Your task to perform on an android device: open chrome and create a bookmark for the current page Image 0: 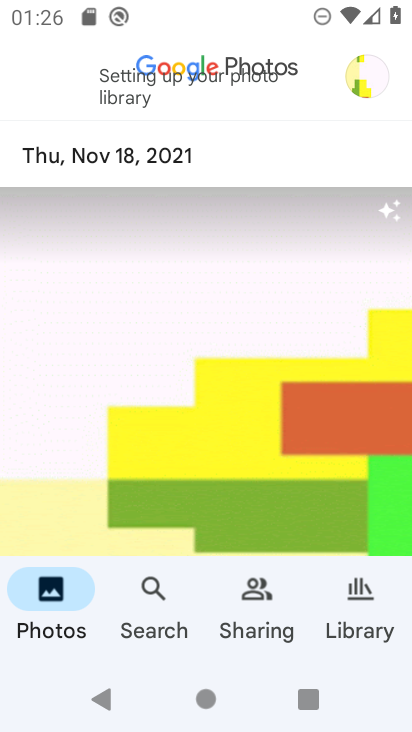
Step 0: press home button
Your task to perform on an android device: open chrome and create a bookmark for the current page Image 1: 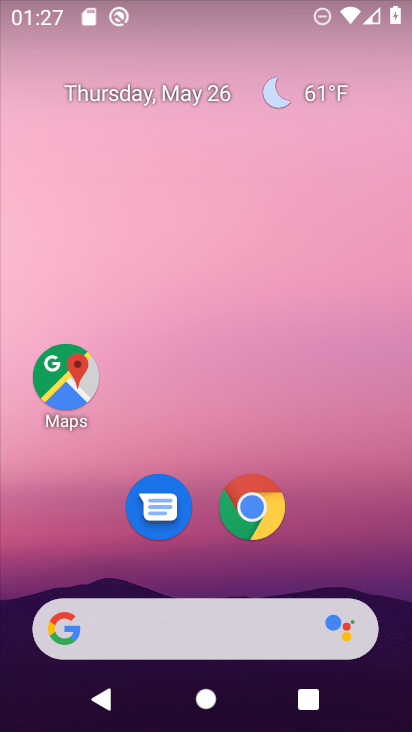
Step 1: click (252, 498)
Your task to perform on an android device: open chrome and create a bookmark for the current page Image 2: 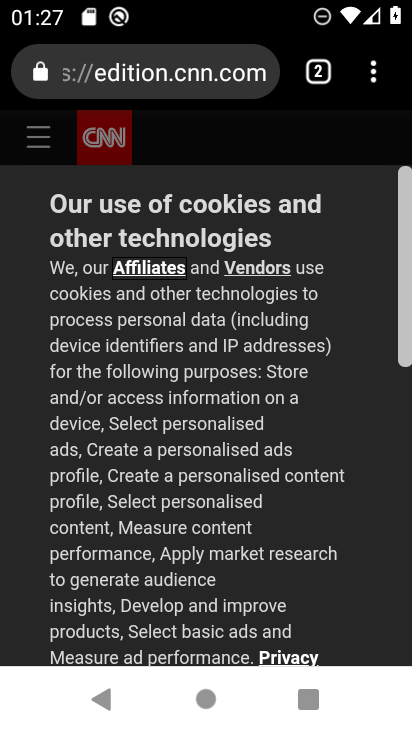
Step 2: click (371, 76)
Your task to perform on an android device: open chrome and create a bookmark for the current page Image 3: 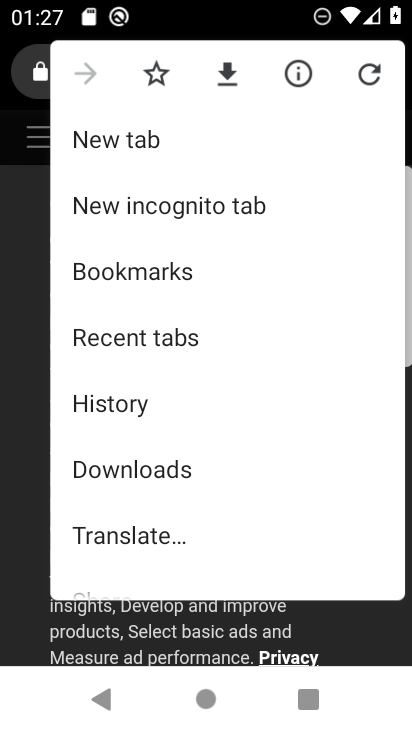
Step 3: click (155, 82)
Your task to perform on an android device: open chrome and create a bookmark for the current page Image 4: 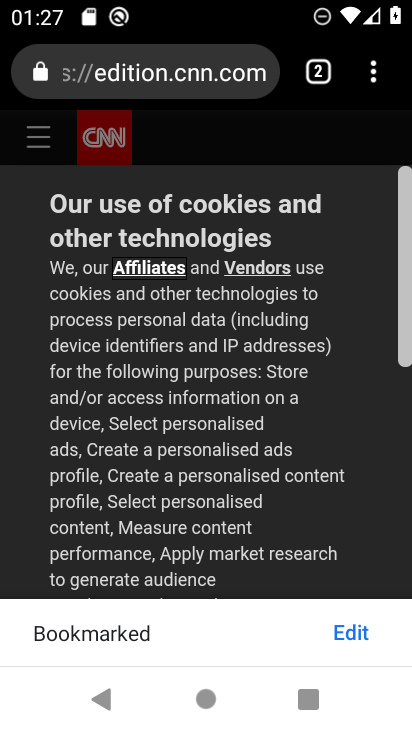
Step 4: task complete